Your task to perform on an android device: Search for Italian restaurants on Maps Image 0: 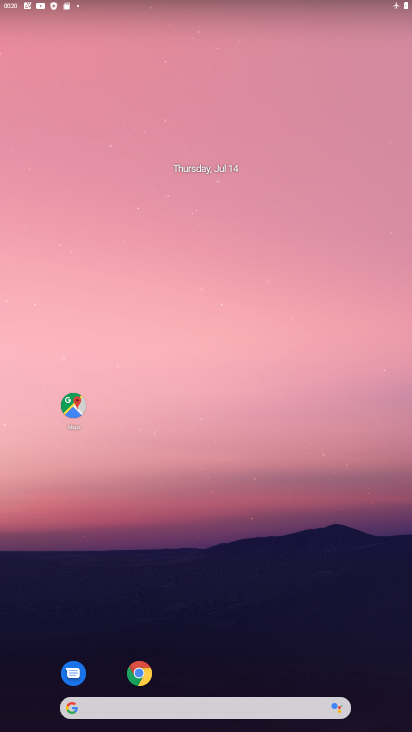
Step 0: click (65, 412)
Your task to perform on an android device: Search for Italian restaurants on Maps Image 1: 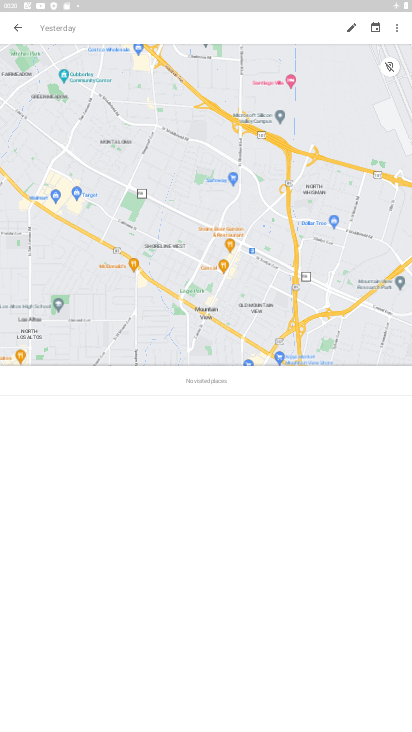
Step 1: click (202, 28)
Your task to perform on an android device: Search for Italian restaurants on Maps Image 2: 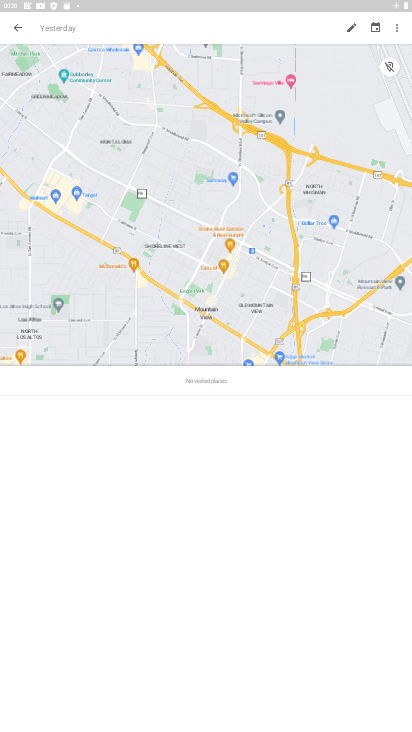
Step 2: click (202, 28)
Your task to perform on an android device: Search for Italian restaurants on Maps Image 3: 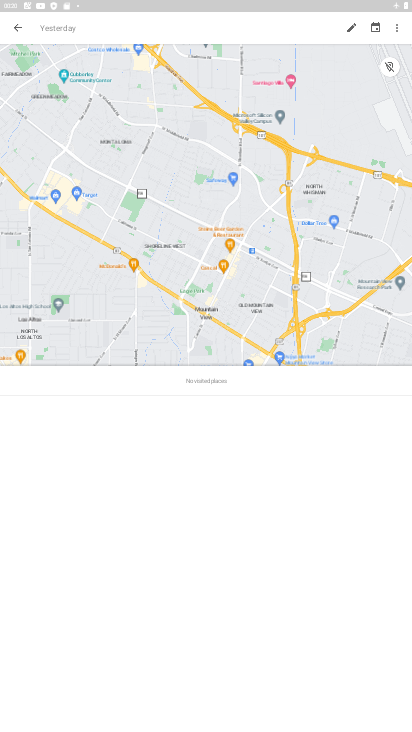
Step 3: click (9, 26)
Your task to perform on an android device: Search for Italian restaurants on Maps Image 4: 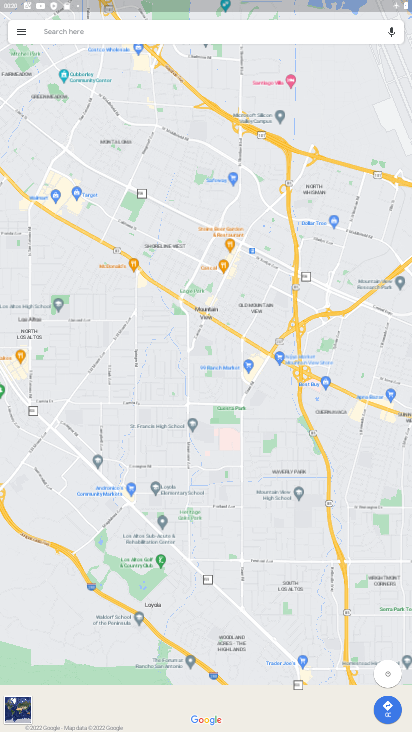
Step 4: click (67, 28)
Your task to perform on an android device: Search for Italian restaurants on Maps Image 5: 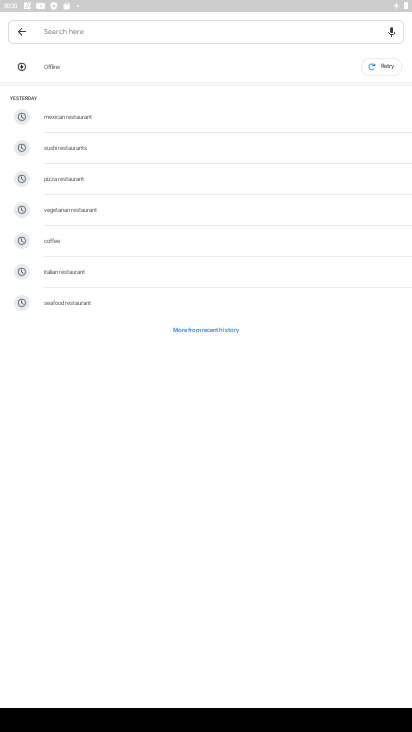
Step 5: type "Italian restaurants"
Your task to perform on an android device: Search for Italian restaurants on Maps Image 6: 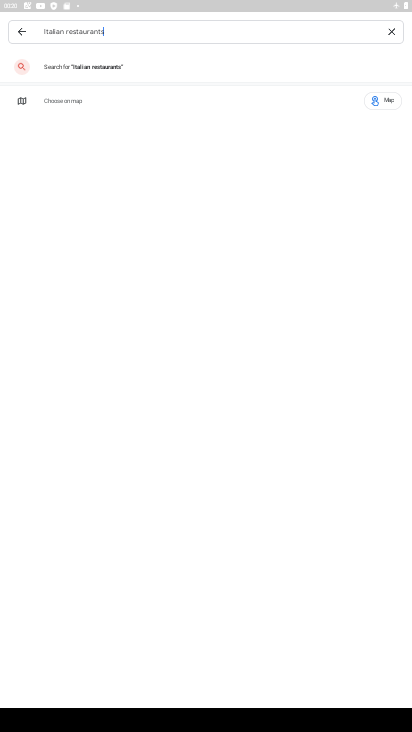
Step 6: click (87, 69)
Your task to perform on an android device: Search for Italian restaurants on Maps Image 7: 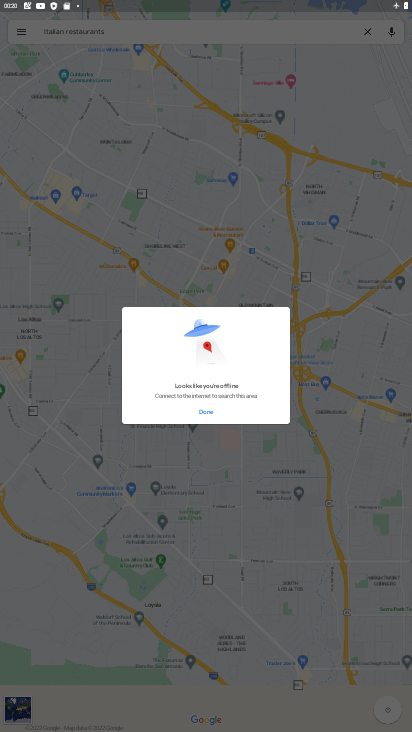
Step 7: task complete